Your task to perform on an android device: uninstall "Move to iOS" Image 0: 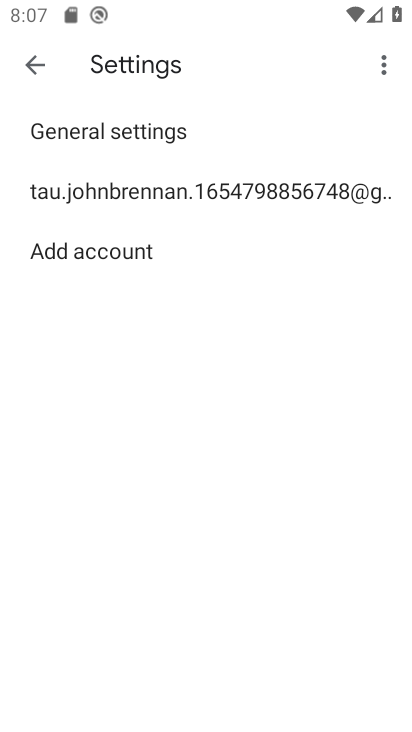
Step 0: press home button
Your task to perform on an android device: uninstall "Move to iOS" Image 1: 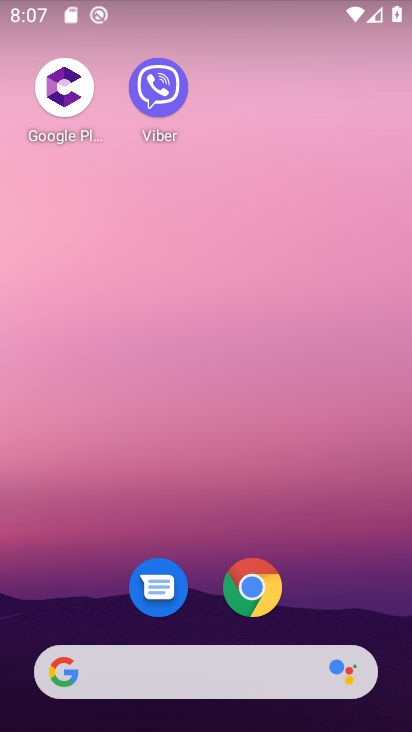
Step 1: drag from (370, 608) to (323, 127)
Your task to perform on an android device: uninstall "Move to iOS" Image 2: 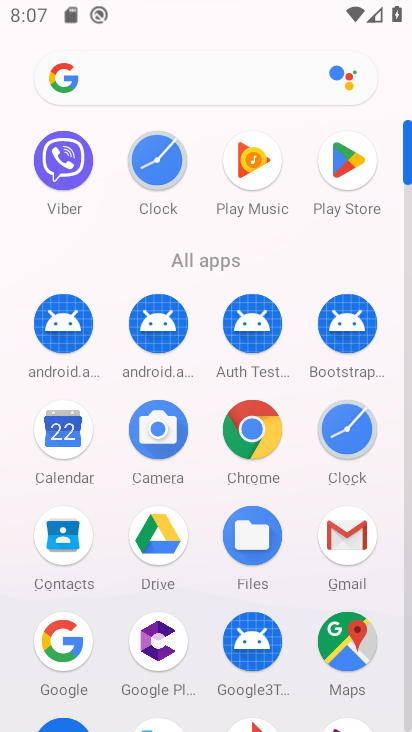
Step 2: drag from (408, 624) to (406, 530)
Your task to perform on an android device: uninstall "Move to iOS" Image 3: 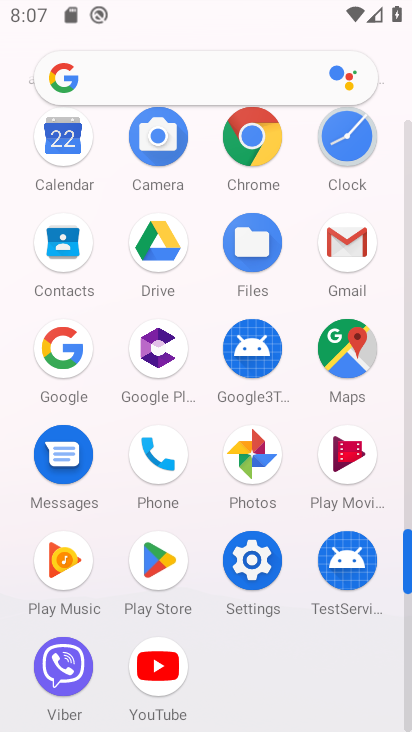
Step 3: click (156, 560)
Your task to perform on an android device: uninstall "Move to iOS" Image 4: 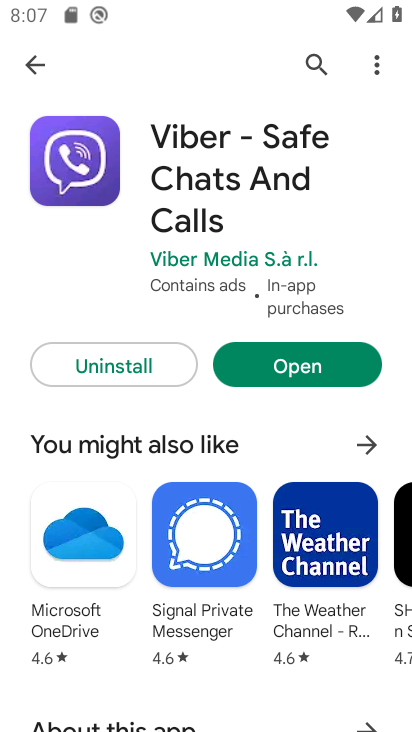
Step 4: click (319, 59)
Your task to perform on an android device: uninstall "Move to iOS" Image 5: 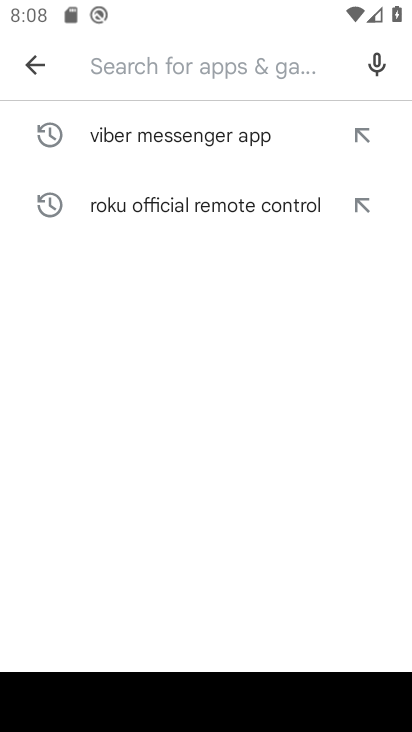
Step 5: type "Move to iOS"
Your task to perform on an android device: uninstall "Move to iOS" Image 6: 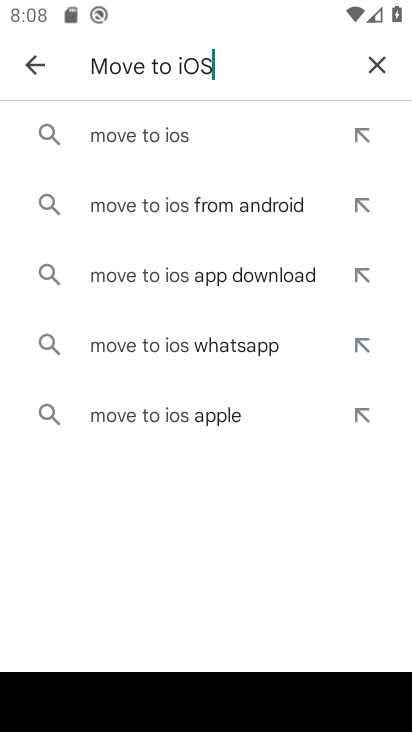
Step 6: click (135, 133)
Your task to perform on an android device: uninstall "Move to iOS" Image 7: 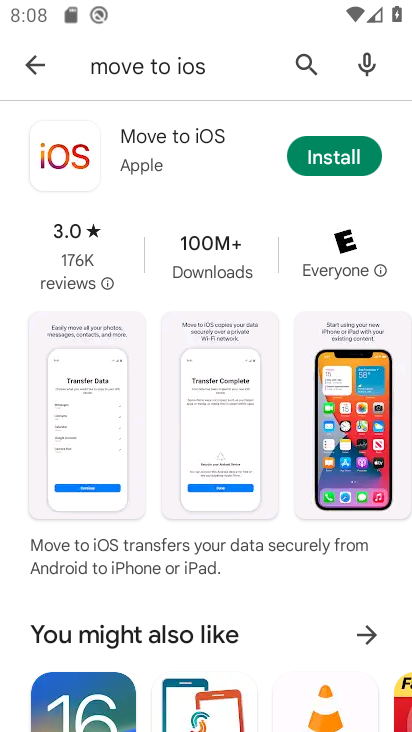
Step 7: task complete